Your task to perform on an android device: turn off notifications settings in the gmail app Image 0: 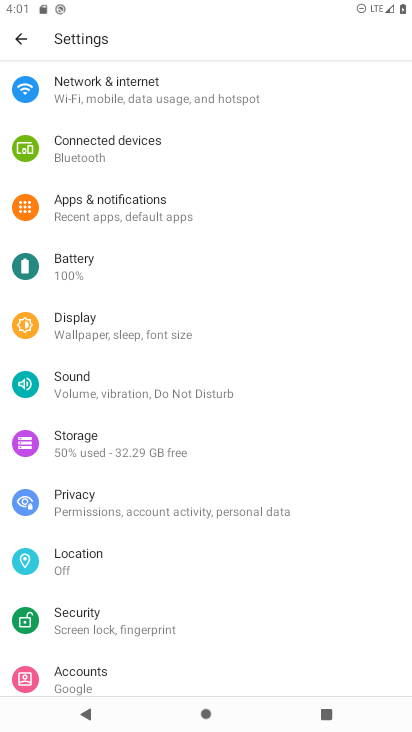
Step 0: press home button
Your task to perform on an android device: turn off notifications settings in the gmail app Image 1: 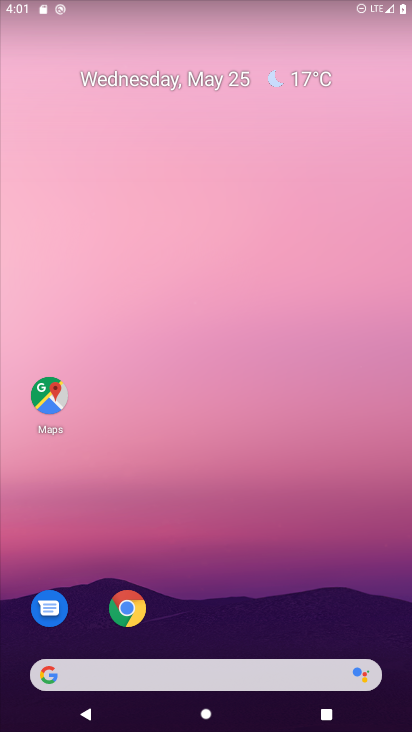
Step 1: drag from (384, 620) to (303, 104)
Your task to perform on an android device: turn off notifications settings in the gmail app Image 2: 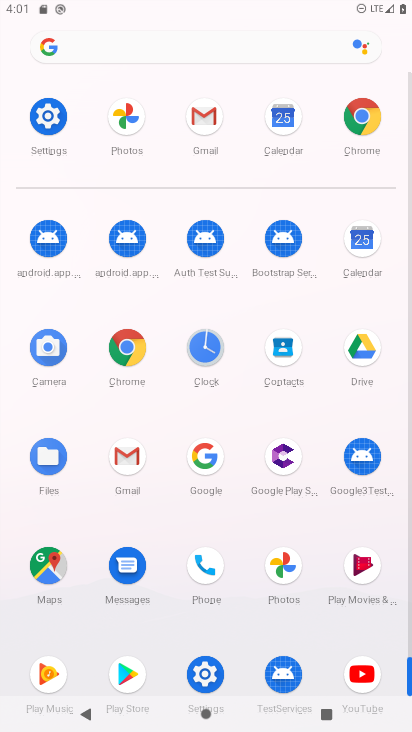
Step 2: click (126, 454)
Your task to perform on an android device: turn off notifications settings in the gmail app Image 3: 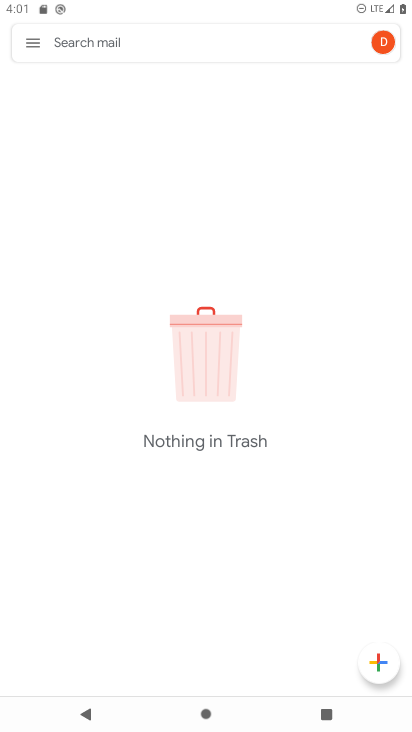
Step 3: click (33, 39)
Your task to perform on an android device: turn off notifications settings in the gmail app Image 4: 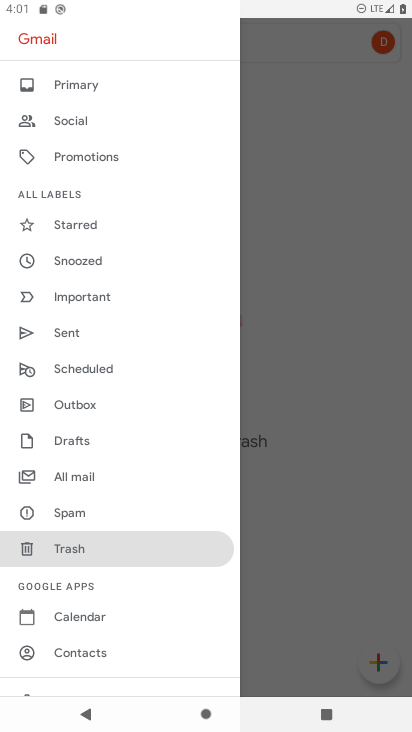
Step 4: drag from (156, 656) to (178, 126)
Your task to perform on an android device: turn off notifications settings in the gmail app Image 5: 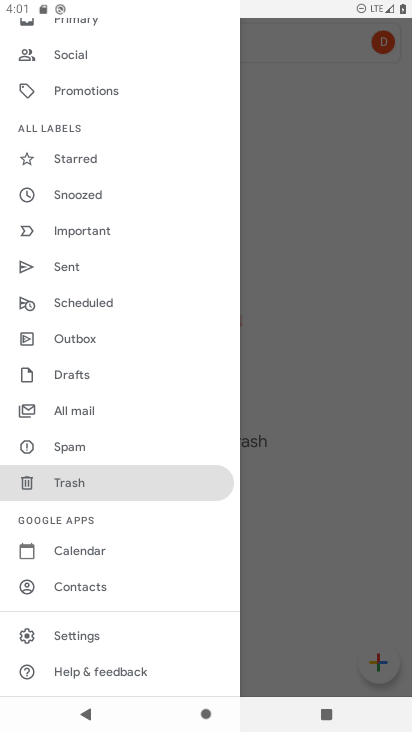
Step 5: click (72, 635)
Your task to perform on an android device: turn off notifications settings in the gmail app Image 6: 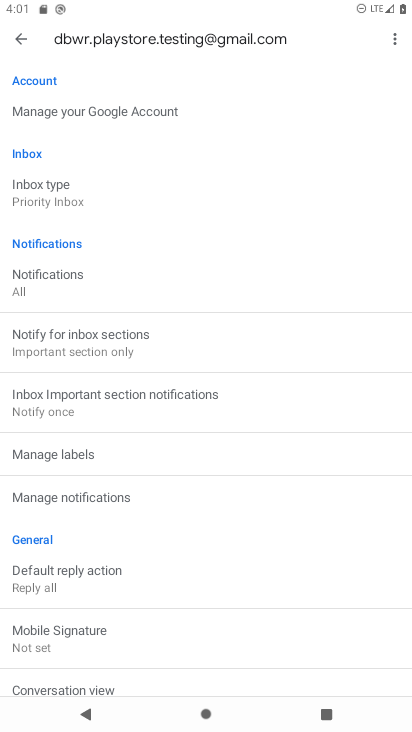
Step 6: click (112, 494)
Your task to perform on an android device: turn off notifications settings in the gmail app Image 7: 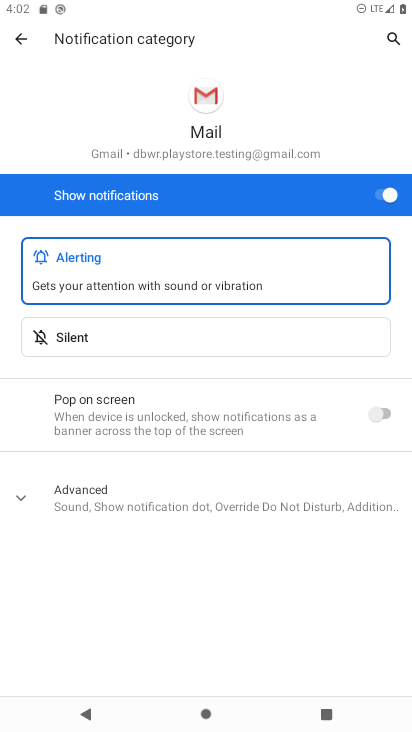
Step 7: click (376, 192)
Your task to perform on an android device: turn off notifications settings in the gmail app Image 8: 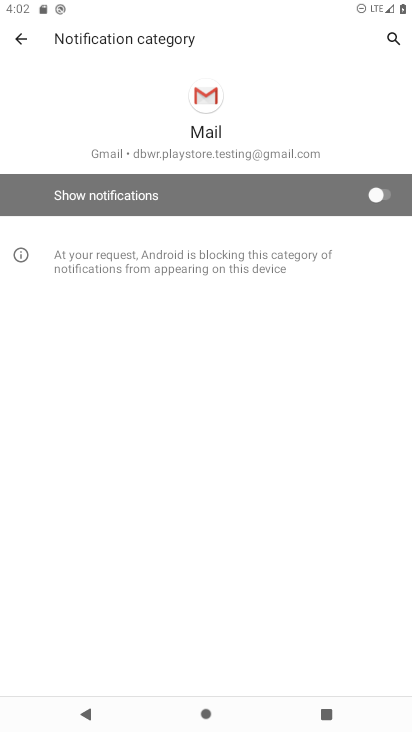
Step 8: task complete